Your task to perform on an android device: Is it going to rain today? Image 0: 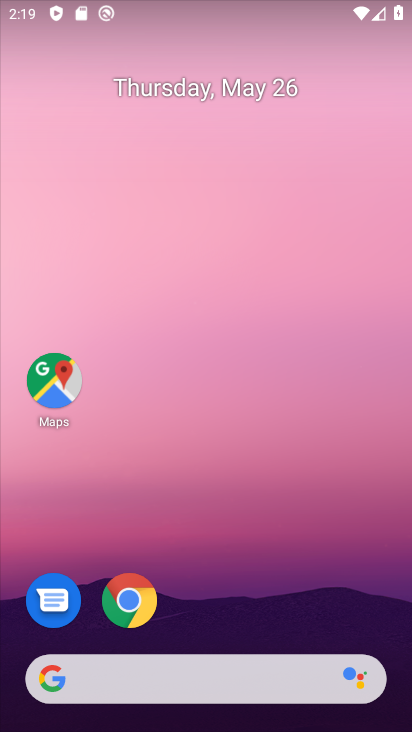
Step 0: drag from (27, 493) to (394, 415)
Your task to perform on an android device: Is it going to rain today? Image 1: 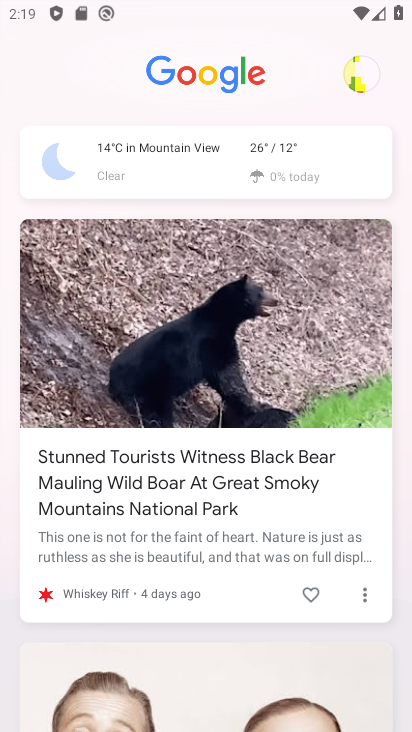
Step 1: click (291, 151)
Your task to perform on an android device: Is it going to rain today? Image 2: 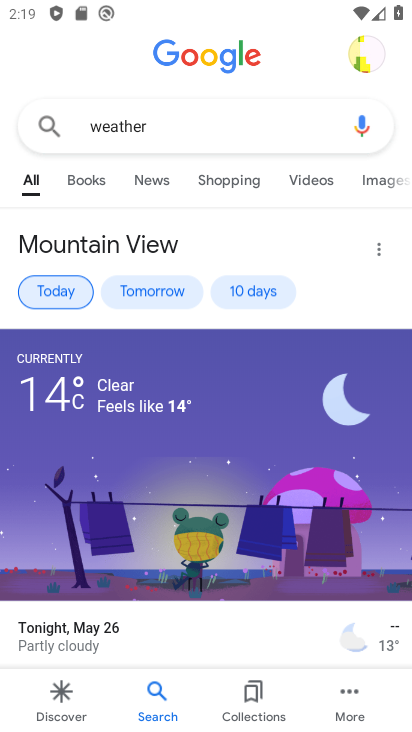
Step 2: task complete